Your task to perform on an android device: Open settings Image 0: 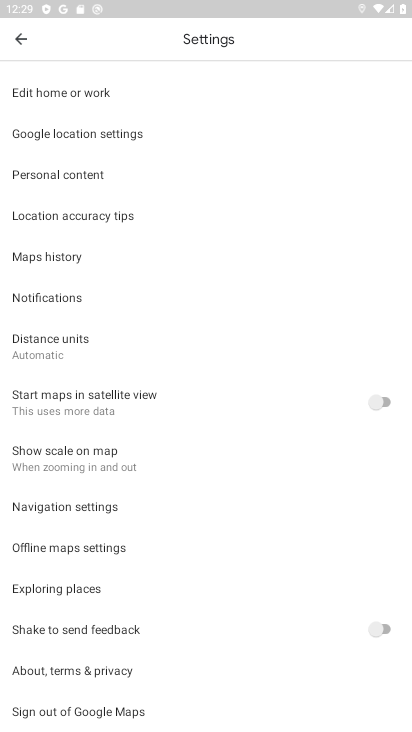
Step 0: drag from (151, 624) to (223, 310)
Your task to perform on an android device: Open settings Image 1: 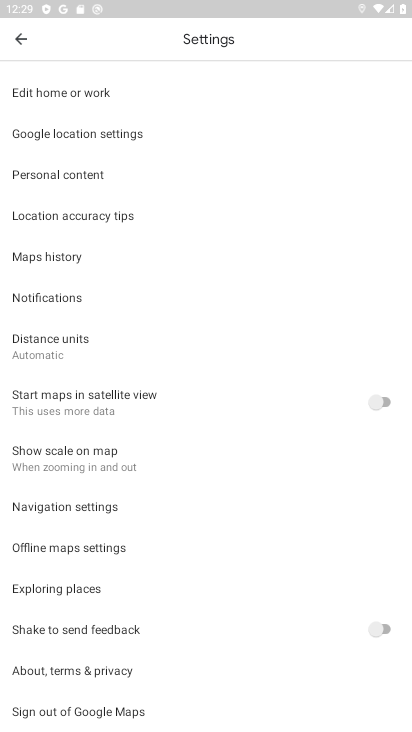
Step 1: press home button
Your task to perform on an android device: Open settings Image 2: 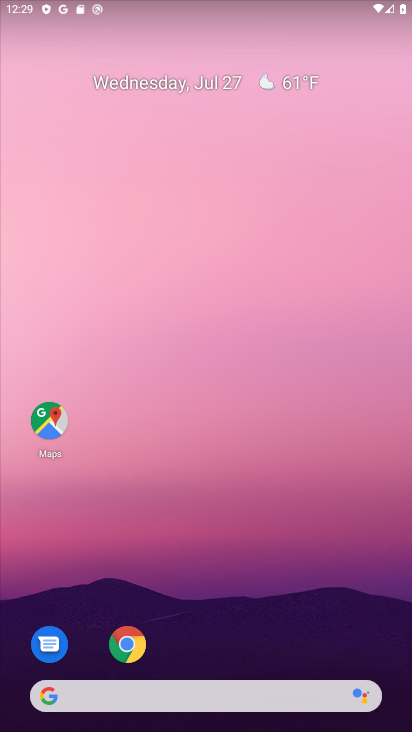
Step 2: drag from (186, 641) to (217, 401)
Your task to perform on an android device: Open settings Image 3: 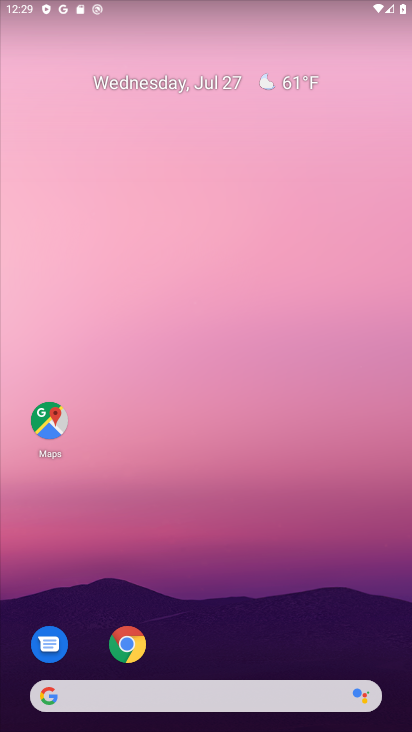
Step 3: drag from (182, 516) to (229, 196)
Your task to perform on an android device: Open settings Image 4: 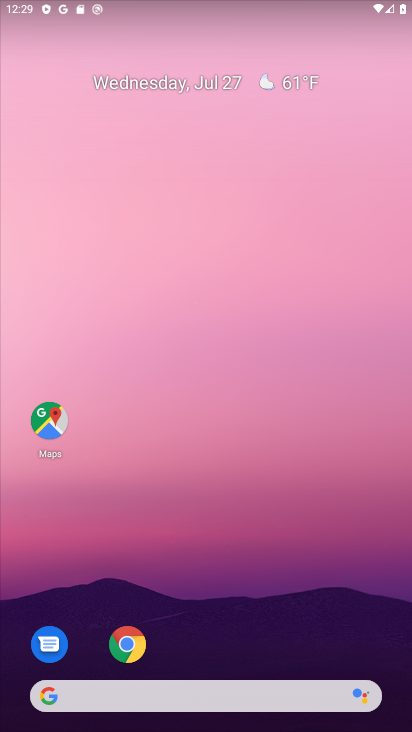
Step 4: drag from (215, 658) to (269, 139)
Your task to perform on an android device: Open settings Image 5: 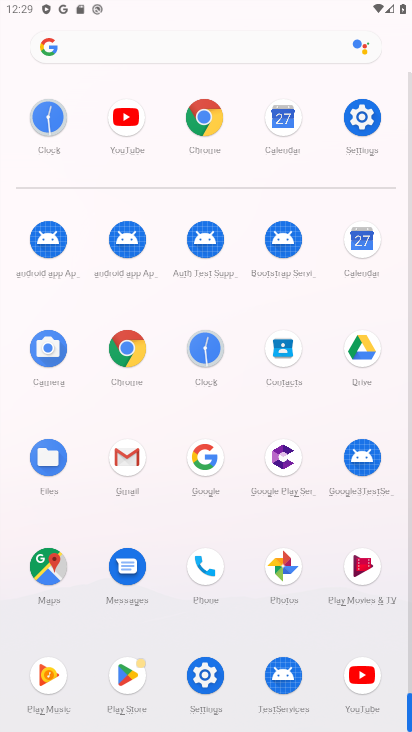
Step 5: drag from (164, 614) to (225, 264)
Your task to perform on an android device: Open settings Image 6: 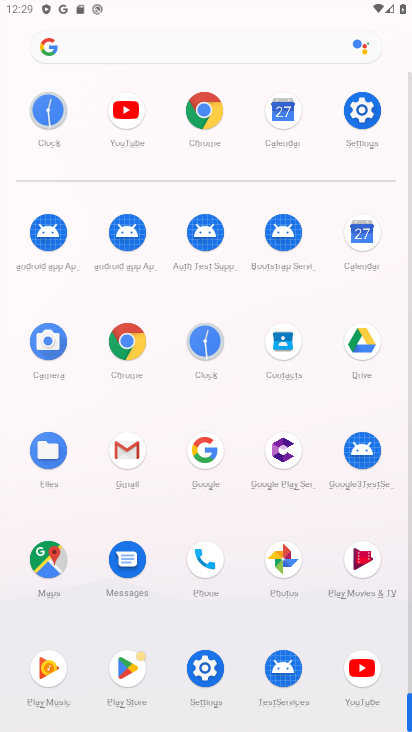
Step 6: click (206, 673)
Your task to perform on an android device: Open settings Image 7: 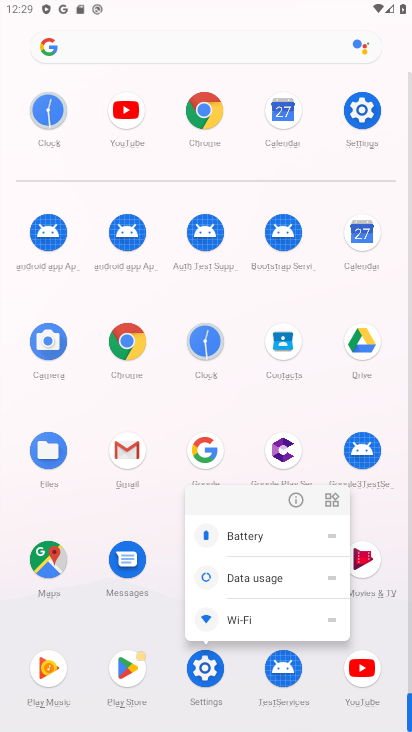
Step 7: click (306, 493)
Your task to perform on an android device: Open settings Image 8: 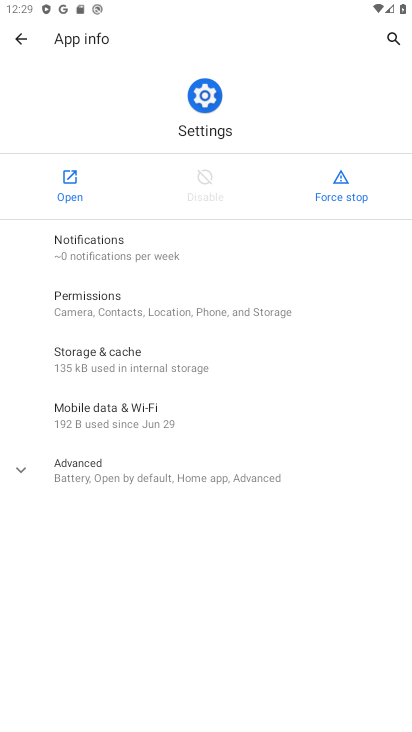
Step 8: click (67, 183)
Your task to perform on an android device: Open settings Image 9: 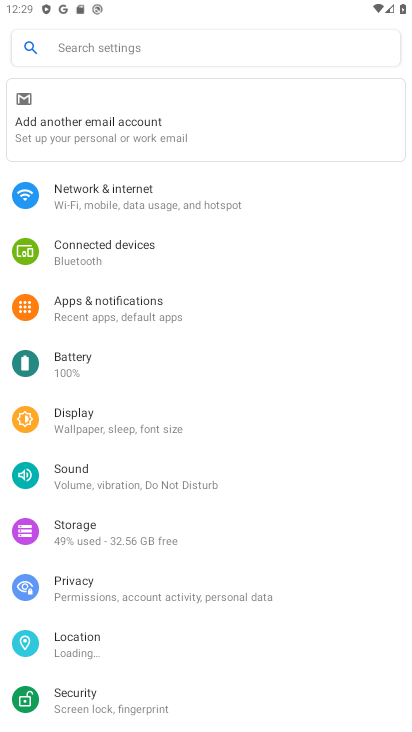
Step 9: task complete